Your task to perform on an android device: turn notification dots on Image 0: 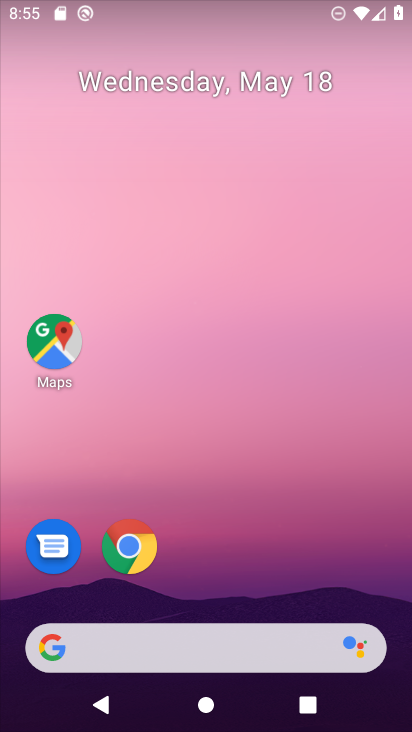
Step 0: drag from (250, 674) to (325, 261)
Your task to perform on an android device: turn notification dots on Image 1: 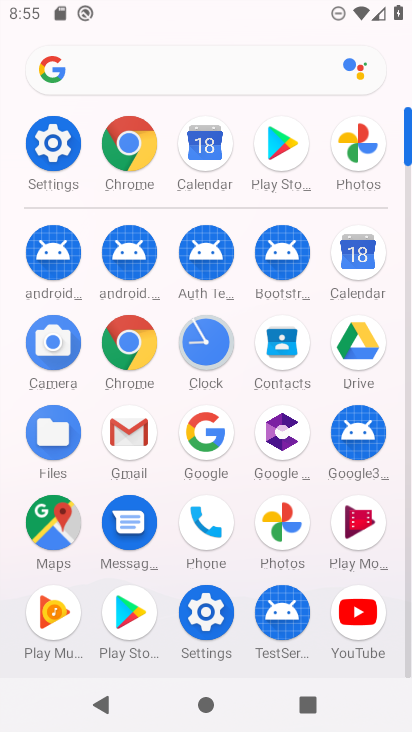
Step 1: click (53, 164)
Your task to perform on an android device: turn notification dots on Image 2: 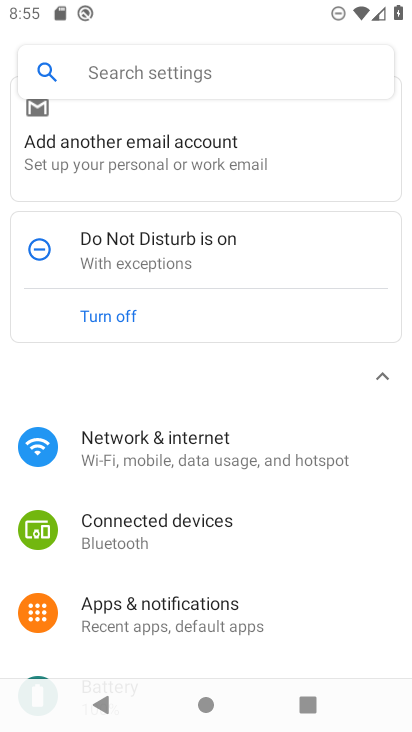
Step 2: click (168, 78)
Your task to perform on an android device: turn notification dots on Image 3: 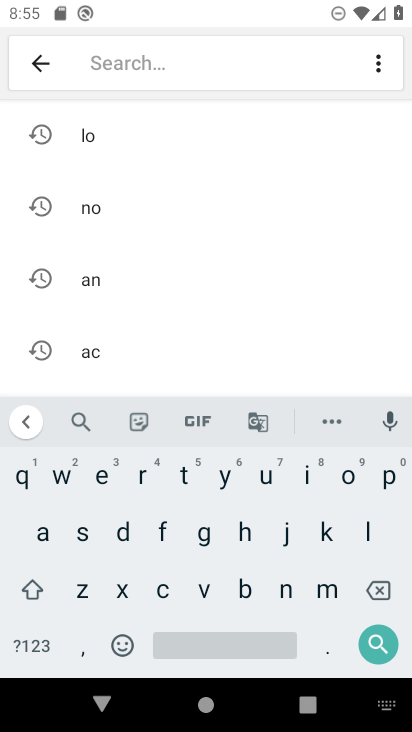
Step 3: click (117, 537)
Your task to perform on an android device: turn notification dots on Image 4: 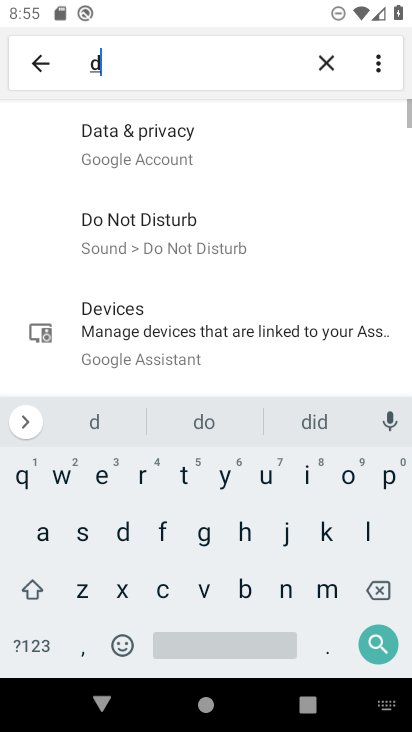
Step 4: click (347, 477)
Your task to perform on an android device: turn notification dots on Image 5: 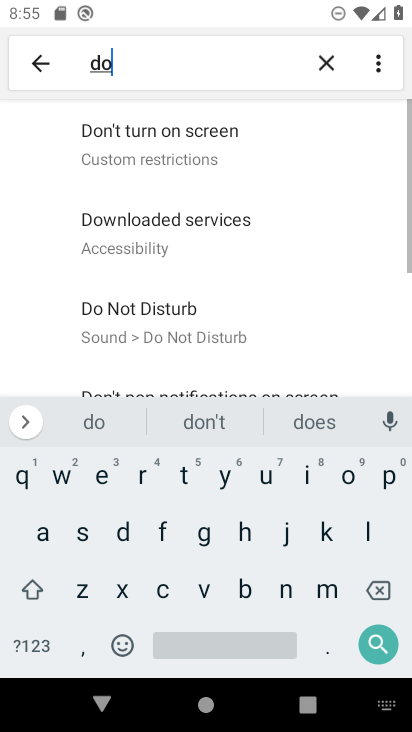
Step 5: click (187, 484)
Your task to perform on an android device: turn notification dots on Image 6: 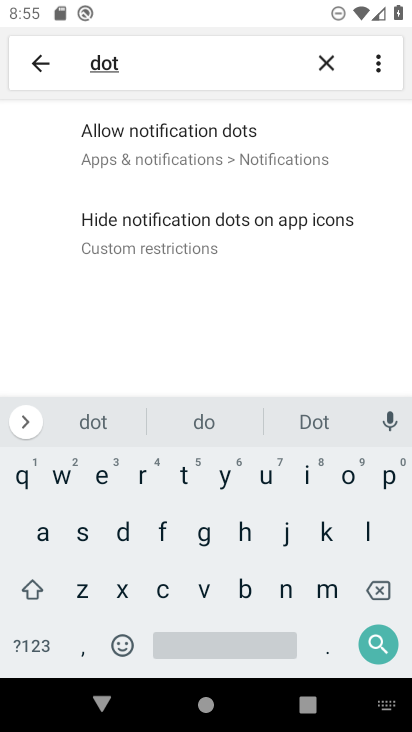
Step 6: click (218, 145)
Your task to perform on an android device: turn notification dots on Image 7: 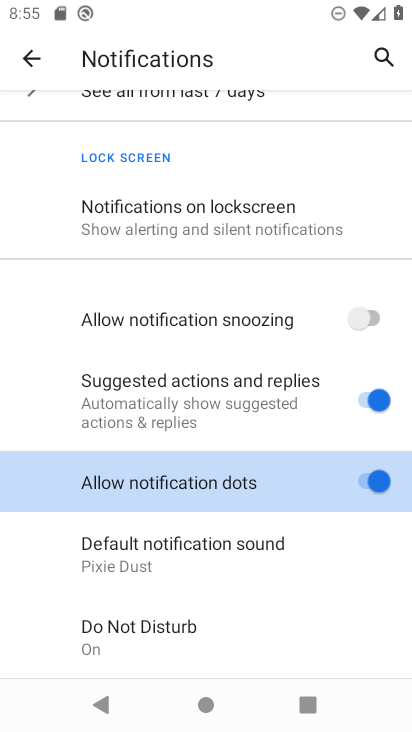
Step 7: click (228, 487)
Your task to perform on an android device: turn notification dots on Image 8: 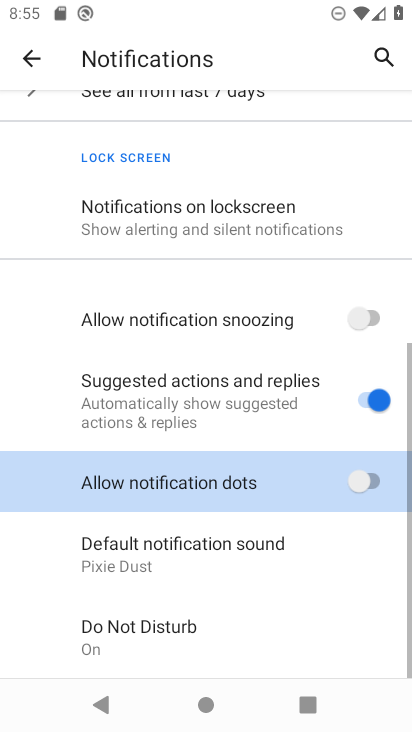
Step 8: click (225, 487)
Your task to perform on an android device: turn notification dots on Image 9: 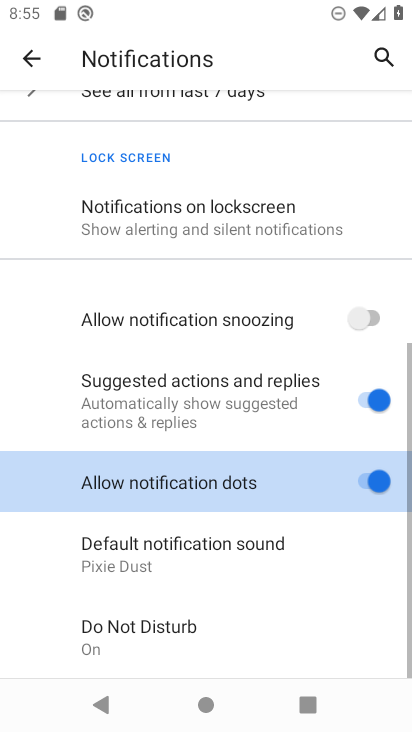
Step 9: task complete